Your task to perform on an android device: Open location settings Image 0: 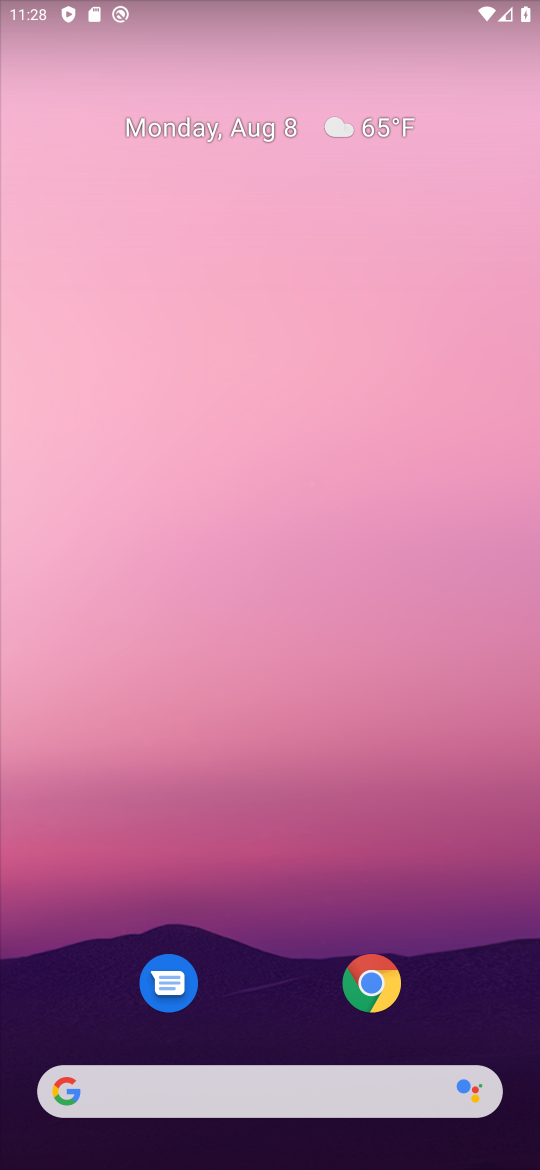
Step 0: drag from (291, 1049) to (348, 440)
Your task to perform on an android device: Open location settings Image 1: 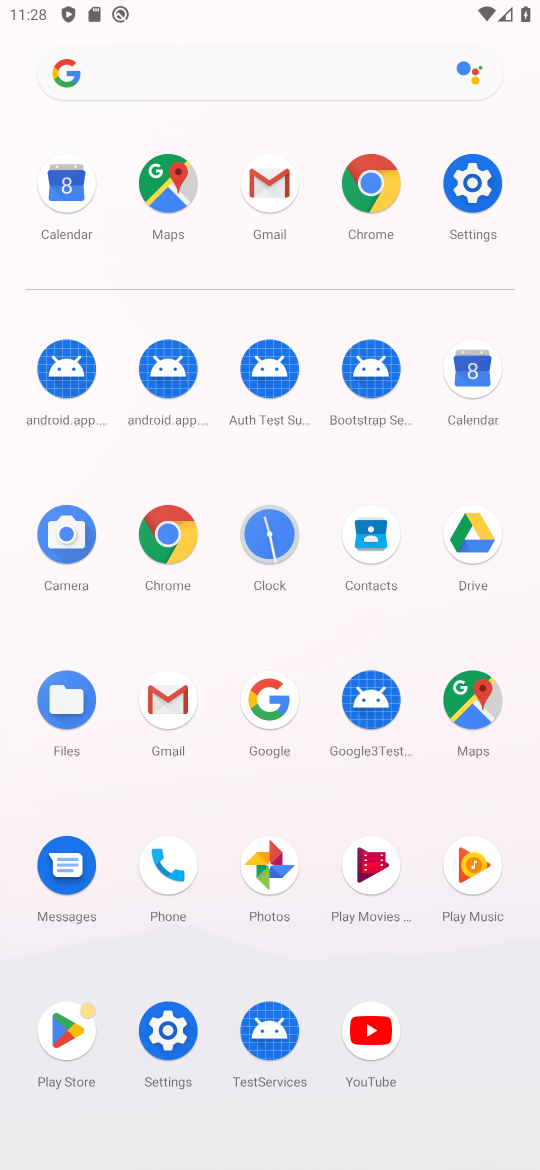
Step 1: click (473, 176)
Your task to perform on an android device: Open location settings Image 2: 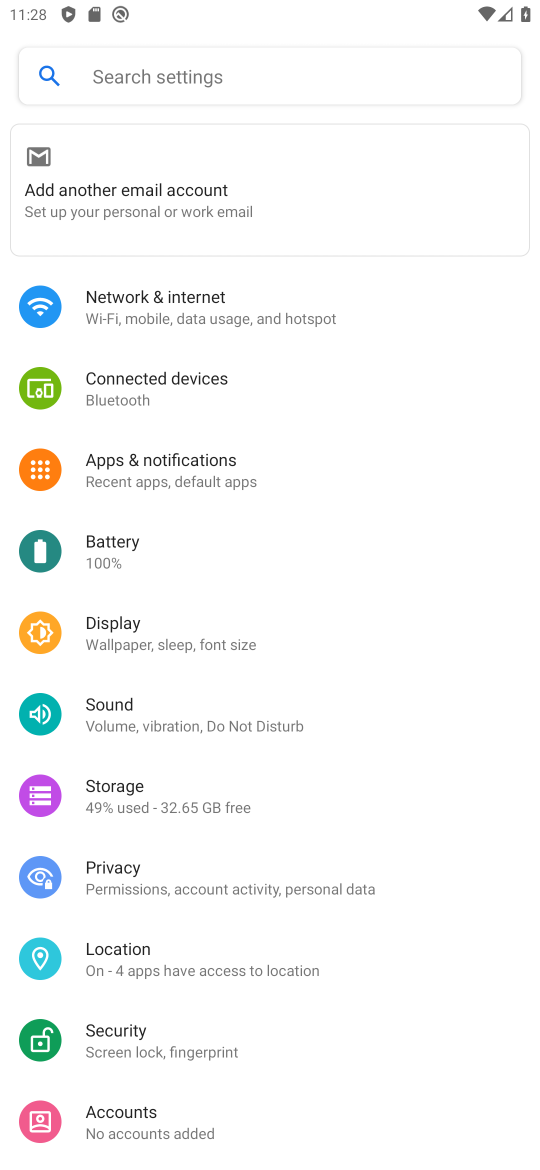
Step 2: drag from (143, 1110) to (189, 596)
Your task to perform on an android device: Open location settings Image 3: 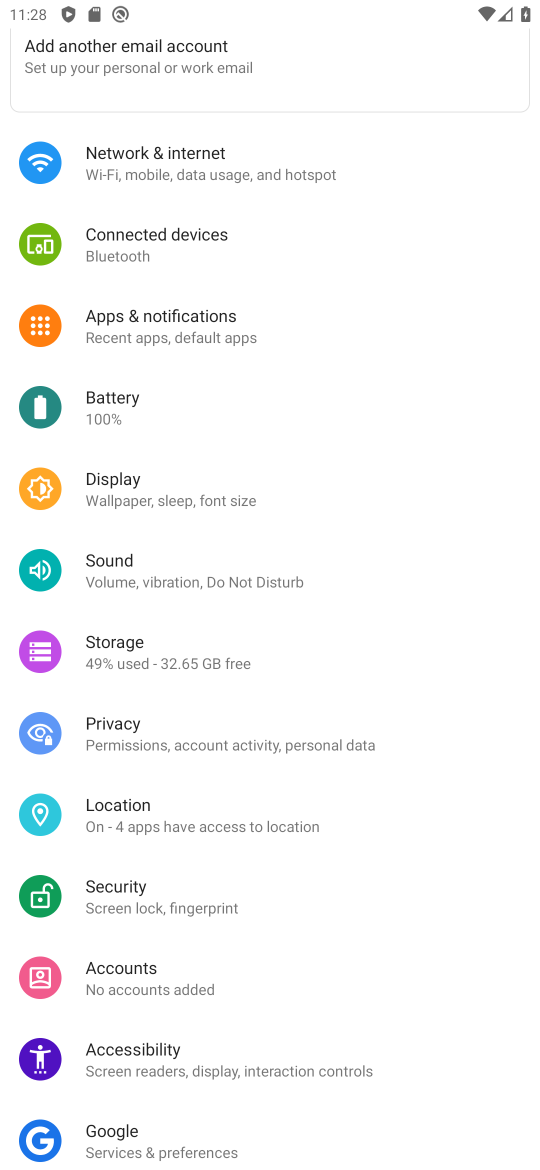
Step 3: drag from (224, 1106) to (242, 972)
Your task to perform on an android device: Open location settings Image 4: 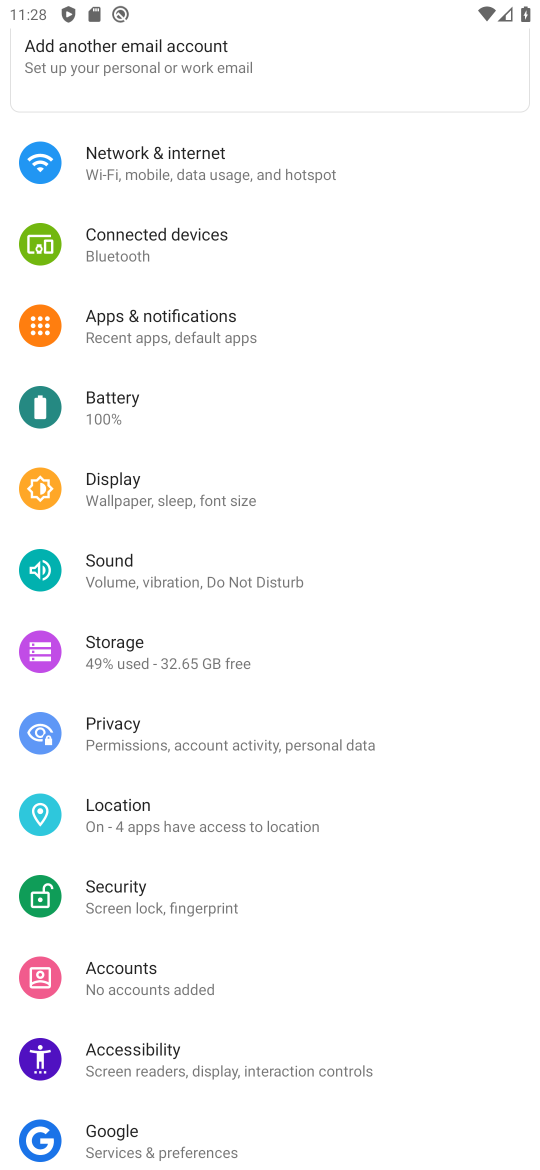
Step 4: click (242, 831)
Your task to perform on an android device: Open location settings Image 5: 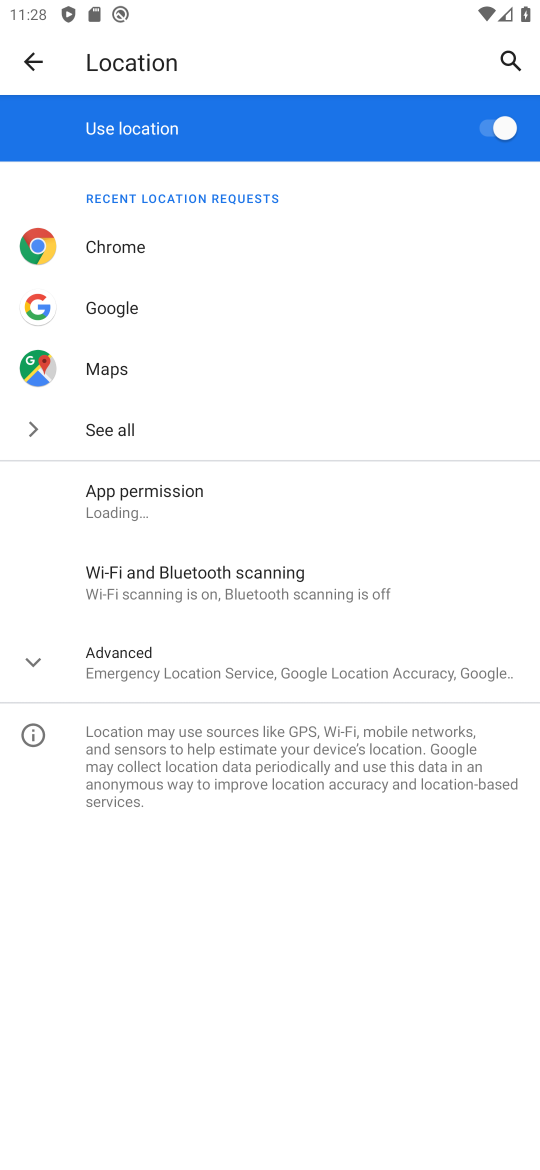
Step 5: task complete